Your task to perform on an android device: add a contact in the contacts app Image 0: 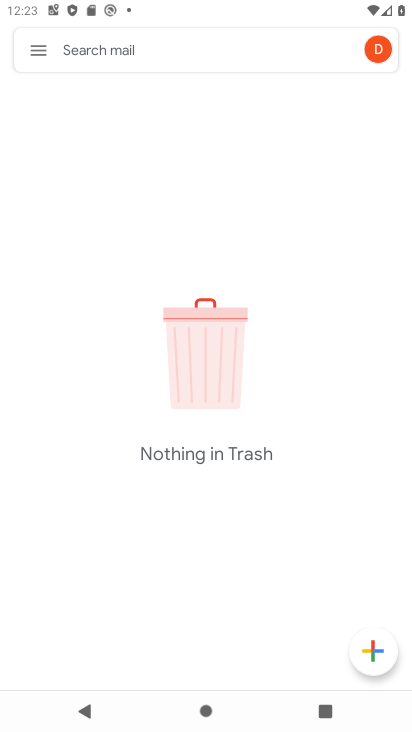
Step 0: press home button
Your task to perform on an android device: add a contact in the contacts app Image 1: 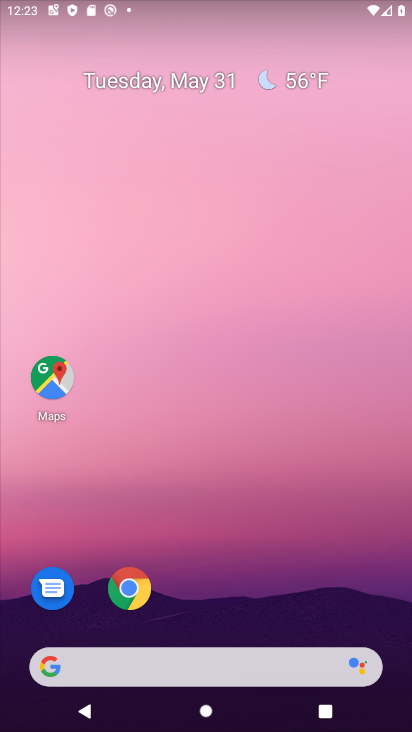
Step 1: drag from (181, 602) to (230, 265)
Your task to perform on an android device: add a contact in the contacts app Image 2: 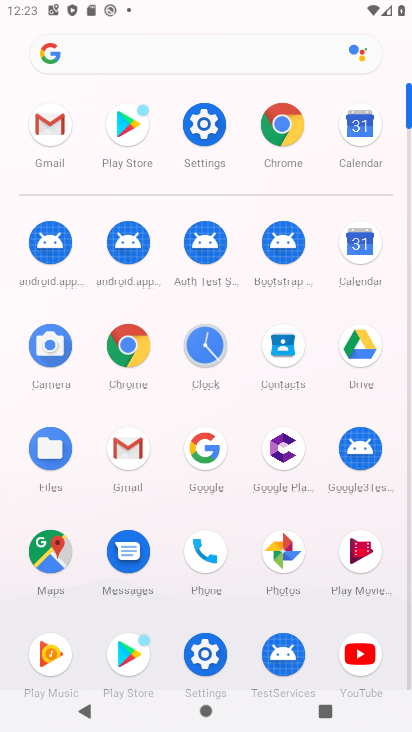
Step 2: click (277, 375)
Your task to perform on an android device: add a contact in the contacts app Image 3: 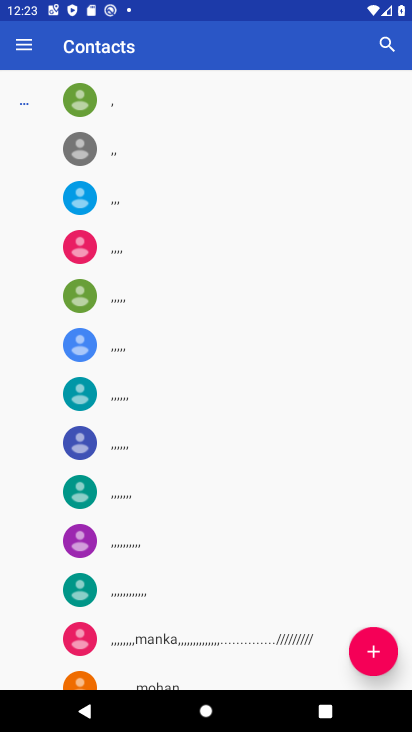
Step 3: click (388, 663)
Your task to perform on an android device: add a contact in the contacts app Image 4: 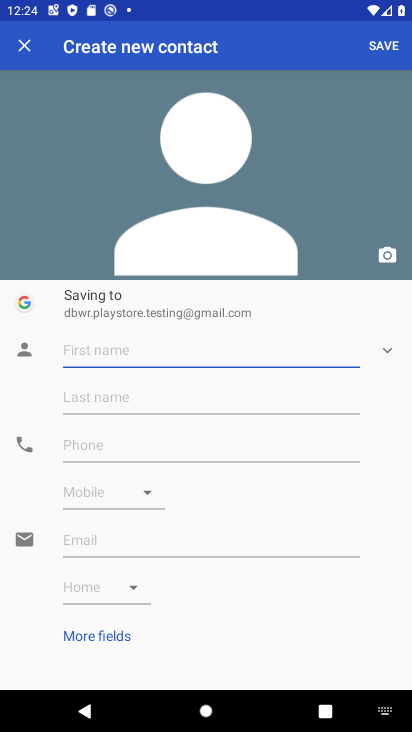
Step 4: click (105, 349)
Your task to perform on an android device: add a contact in the contacts app Image 5: 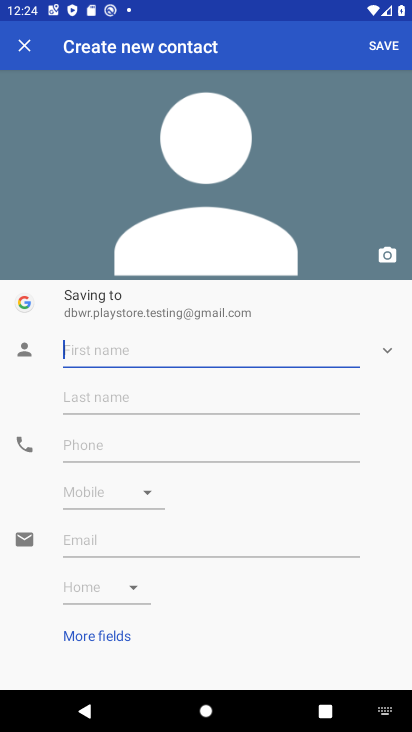
Step 5: type "Ramya"
Your task to perform on an android device: add a contact in the contacts app Image 6: 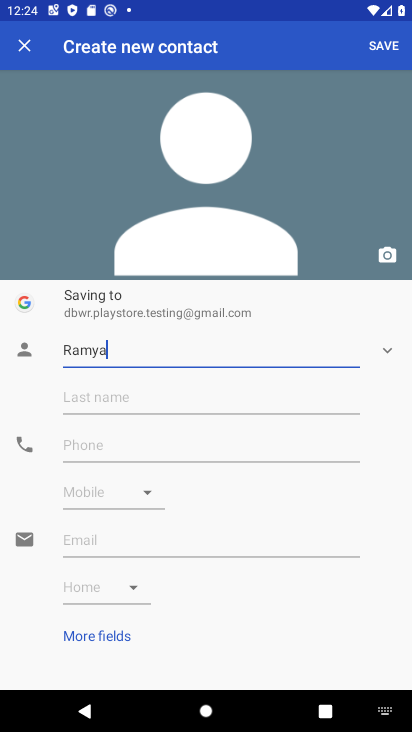
Step 6: click (226, 406)
Your task to perform on an android device: add a contact in the contacts app Image 7: 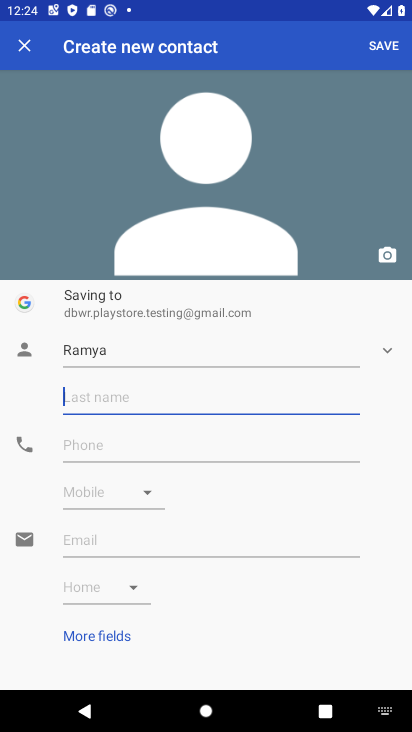
Step 7: type "Sen"
Your task to perform on an android device: add a contact in the contacts app Image 8: 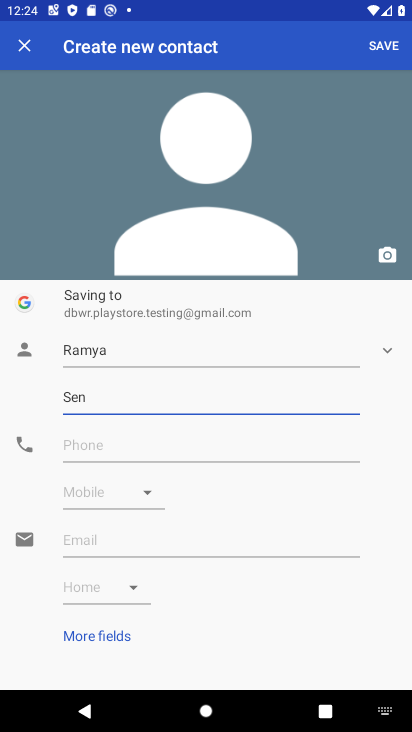
Step 8: click (210, 467)
Your task to perform on an android device: add a contact in the contacts app Image 9: 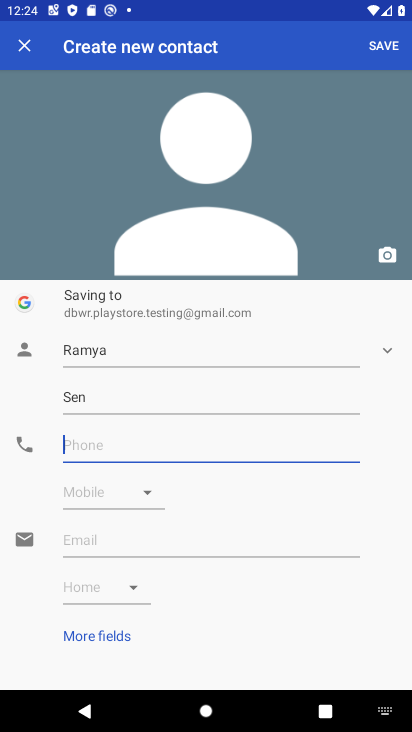
Step 9: type "7979909000"
Your task to perform on an android device: add a contact in the contacts app Image 10: 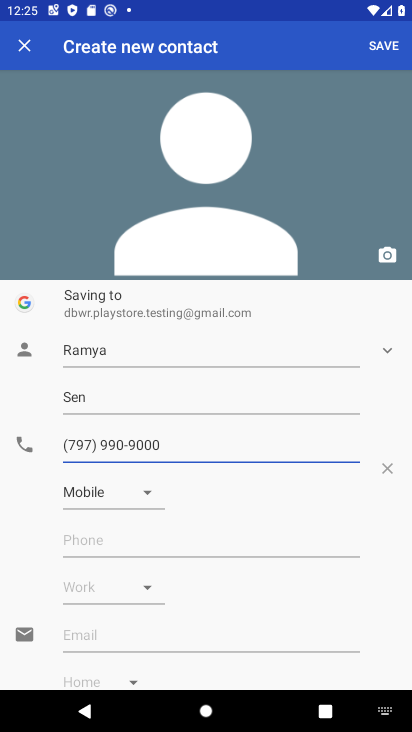
Step 10: click (369, 32)
Your task to perform on an android device: add a contact in the contacts app Image 11: 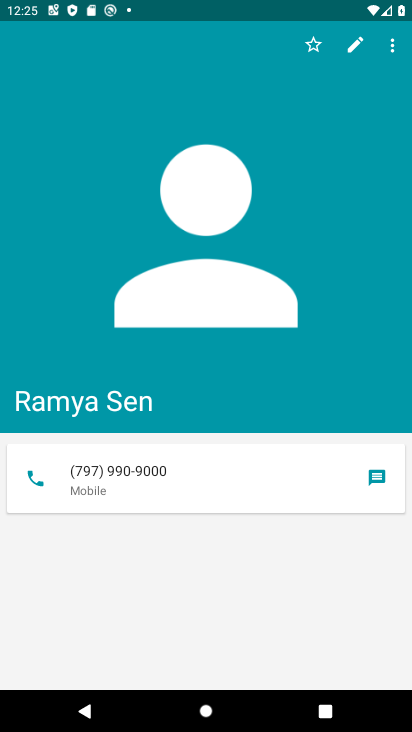
Step 11: task complete